Your task to perform on an android device: change notification settings in the gmail app Image 0: 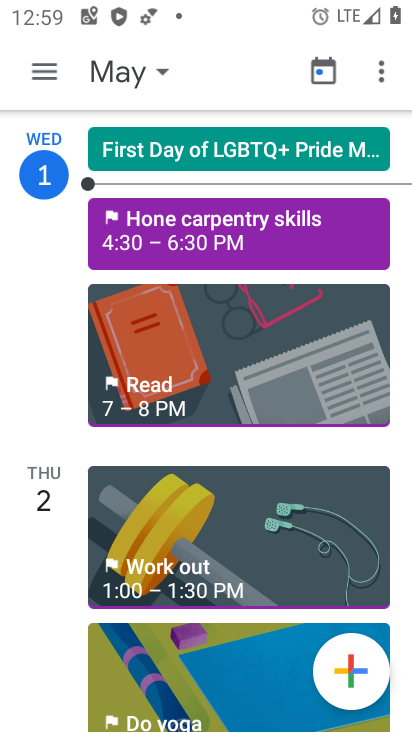
Step 0: press home button
Your task to perform on an android device: change notification settings in the gmail app Image 1: 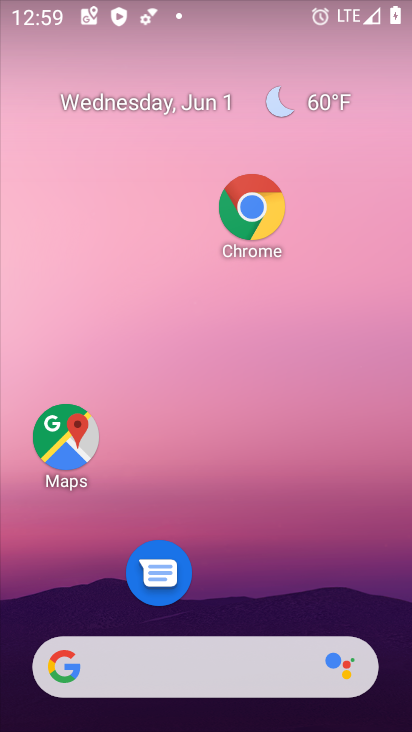
Step 1: drag from (215, 597) to (217, 184)
Your task to perform on an android device: change notification settings in the gmail app Image 2: 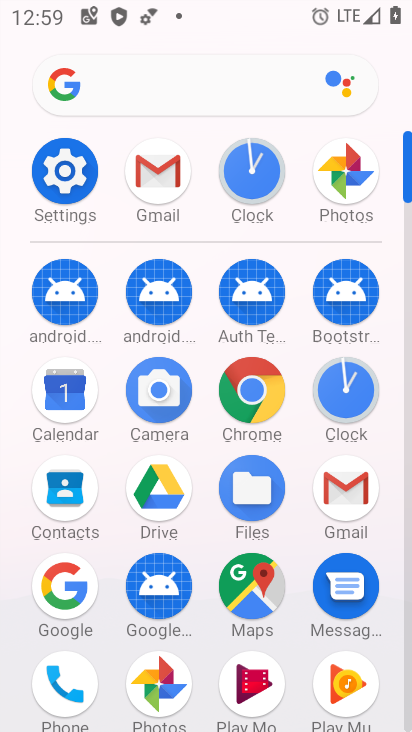
Step 2: click (179, 180)
Your task to perform on an android device: change notification settings in the gmail app Image 3: 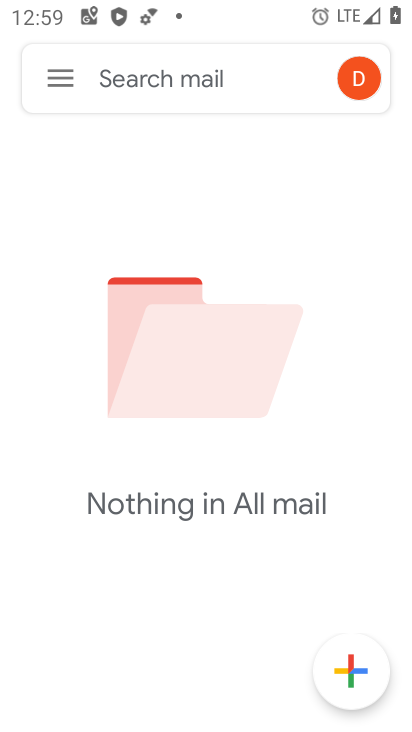
Step 3: click (47, 84)
Your task to perform on an android device: change notification settings in the gmail app Image 4: 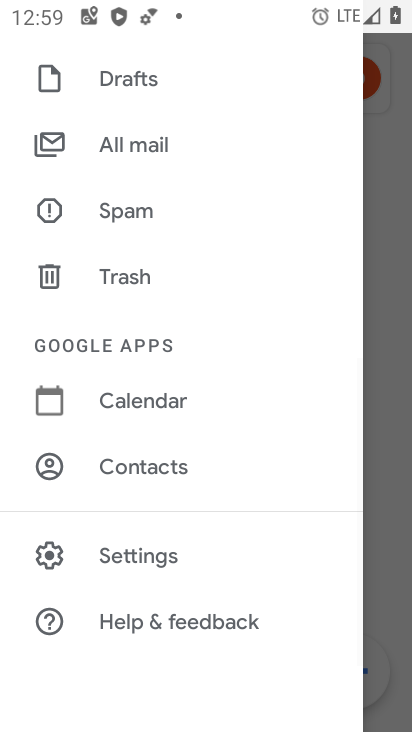
Step 4: click (149, 548)
Your task to perform on an android device: change notification settings in the gmail app Image 5: 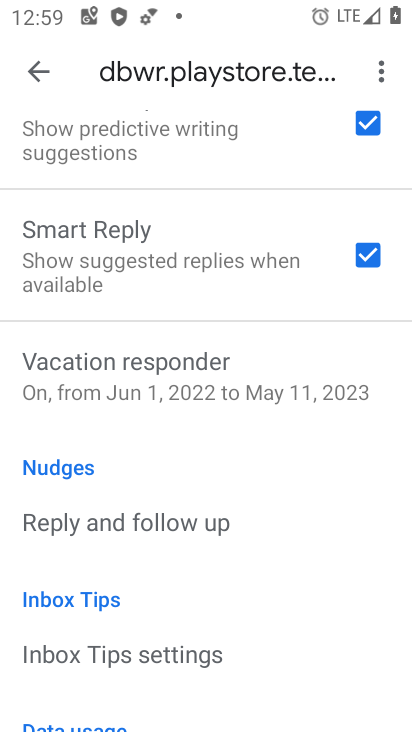
Step 5: click (206, 595)
Your task to perform on an android device: change notification settings in the gmail app Image 6: 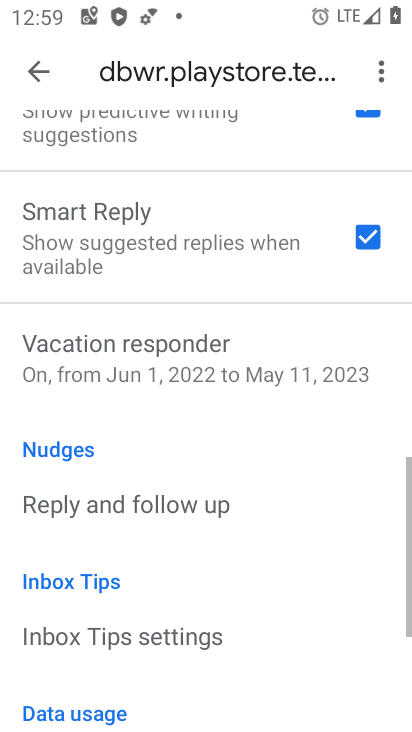
Step 6: drag from (142, 206) to (174, 538)
Your task to perform on an android device: change notification settings in the gmail app Image 7: 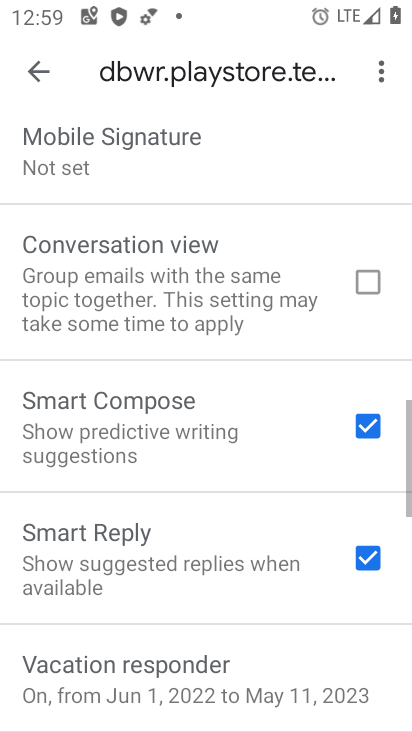
Step 7: drag from (197, 273) to (211, 585)
Your task to perform on an android device: change notification settings in the gmail app Image 8: 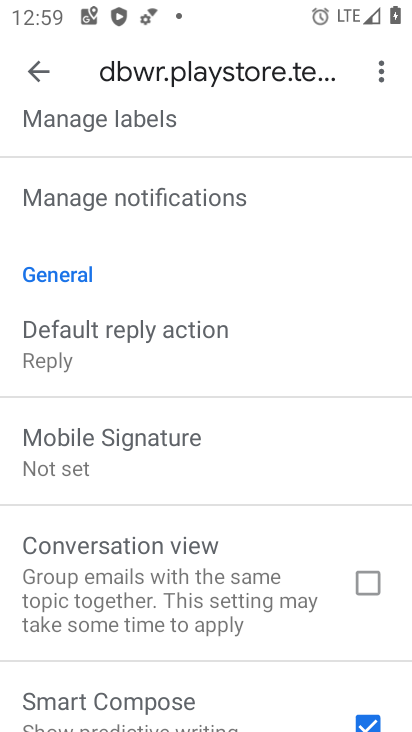
Step 8: click (179, 206)
Your task to perform on an android device: change notification settings in the gmail app Image 9: 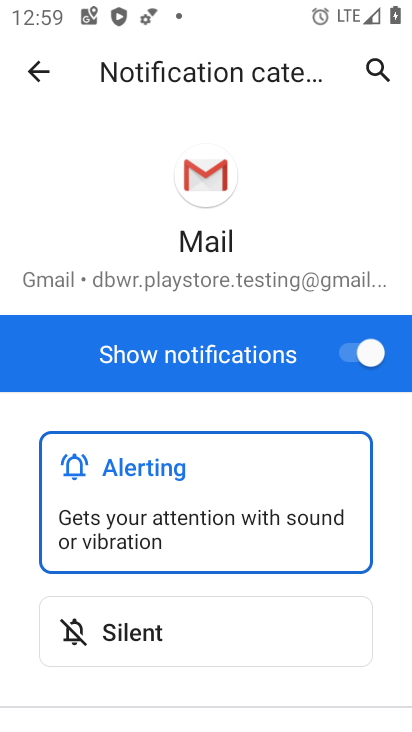
Step 9: click (340, 341)
Your task to perform on an android device: change notification settings in the gmail app Image 10: 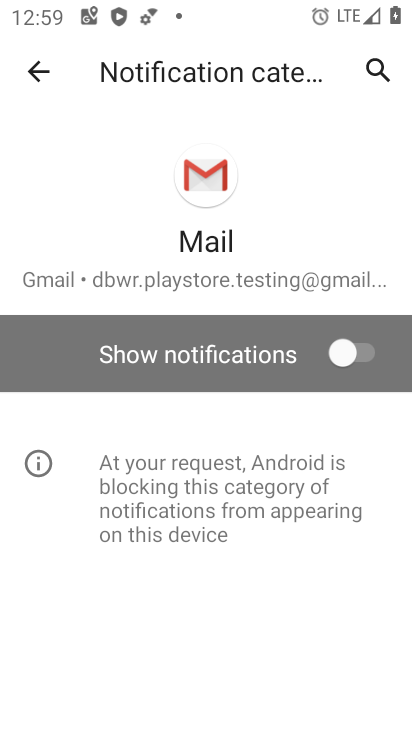
Step 10: task complete